Your task to perform on an android device: star an email in the gmail app Image 0: 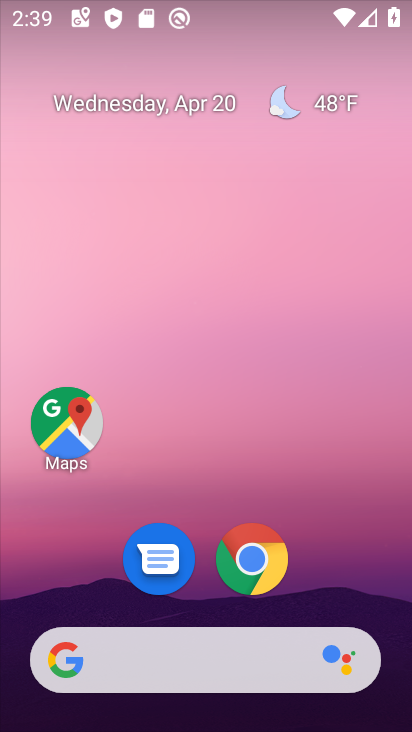
Step 0: drag from (271, 700) to (194, 217)
Your task to perform on an android device: star an email in the gmail app Image 1: 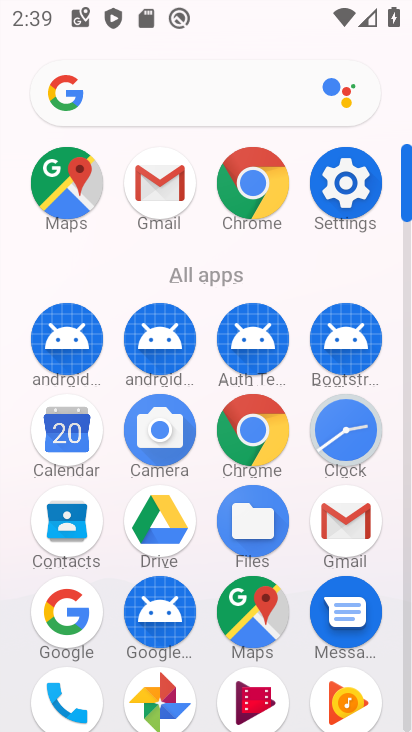
Step 1: click (349, 507)
Your task to perform on an android device: star an email in the gmail app Image 2: 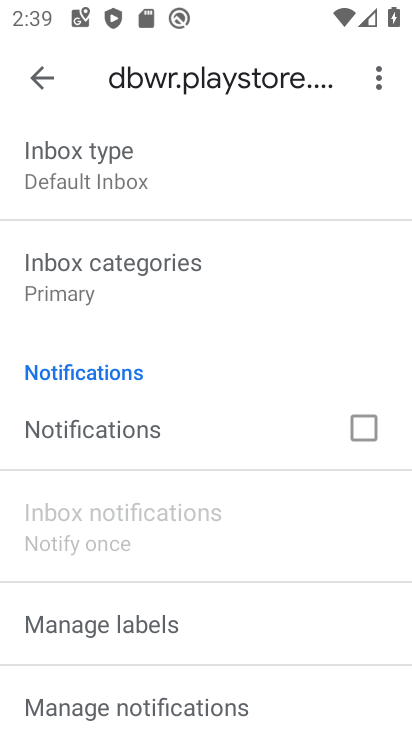
Step 2: click (47, 80)
Your task to perform on an android device: star an email in the gmail app Image 3: 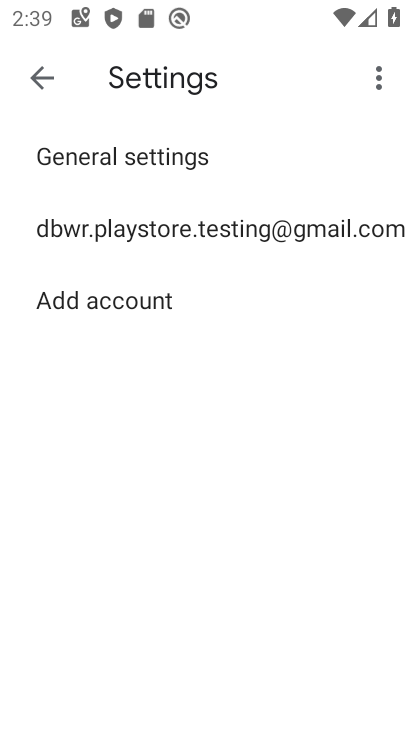
Step 3: click (44, 80)
Your task to perform on an android device: star an email in the gmail app Image 4: 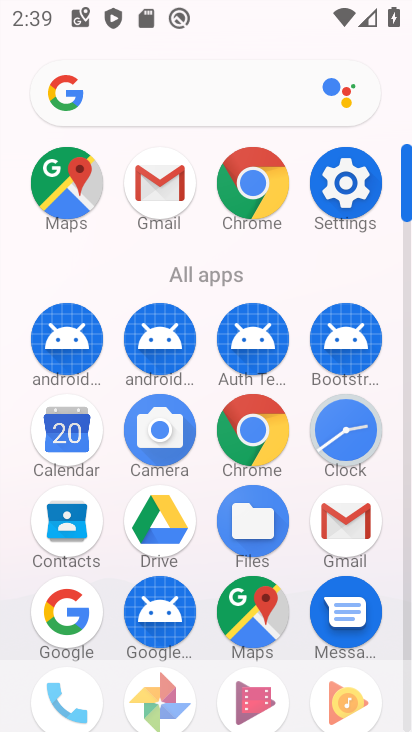
Step 4: click (163, 184)
Your task to perform on an android device: star an email in the gmail app Image 5: 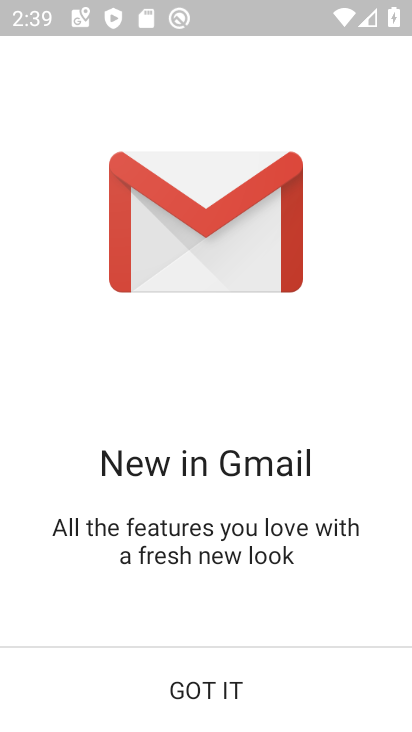
Step 5: click (215, 700)
Your task to perform on an android device: star an email in the gmail app Image 6: 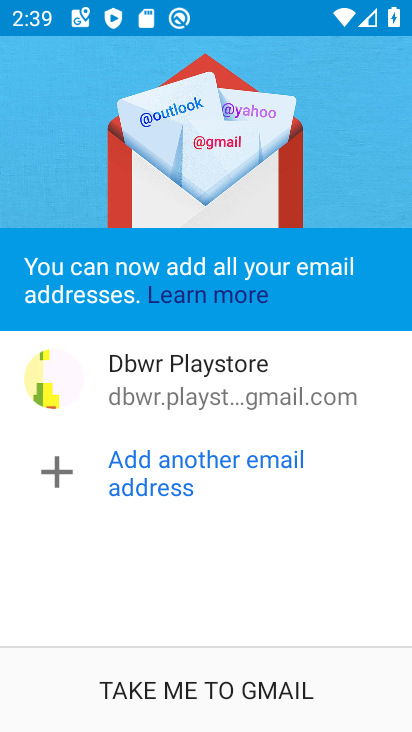
Step 6: click (213, 699)
Your task to perform on an android device: star an email in the gmail app Image 7: 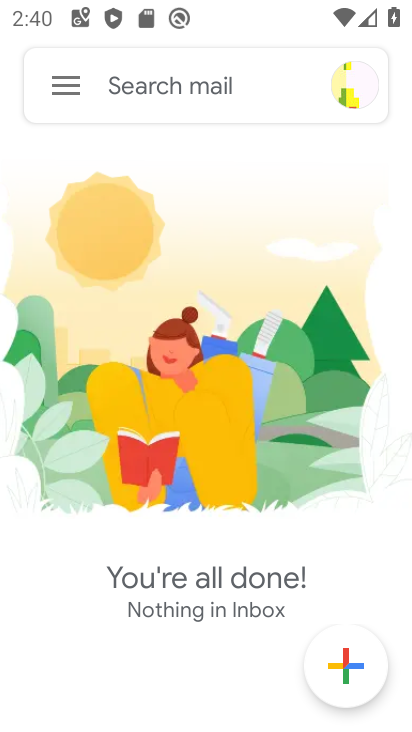
Step 7: click (72, 109)
Your task to perform on an android device: star an email in the gmail app Image 8: 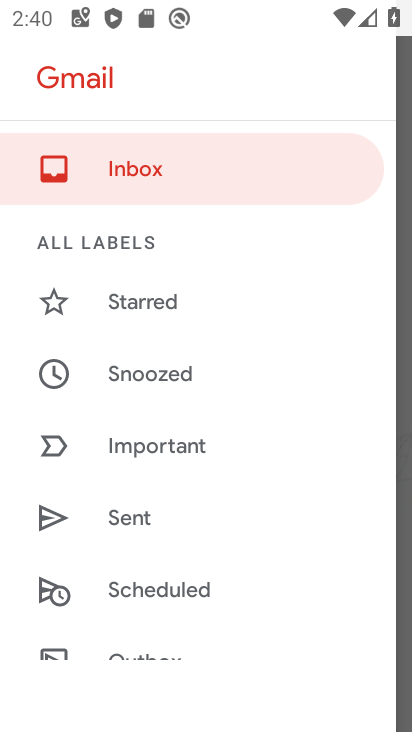
Step 8: click (146, 301)
Your task to perform on an android device: star an email in the gmail app Image 9: 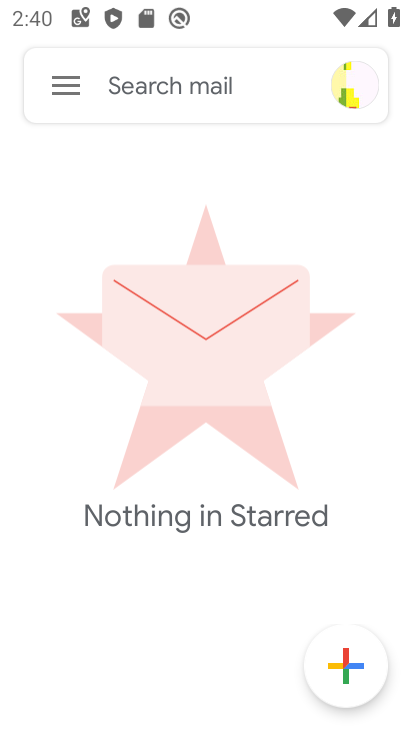
Step 9: task complete